Your task to perform on an android device: turn on sleep mode Image 0: 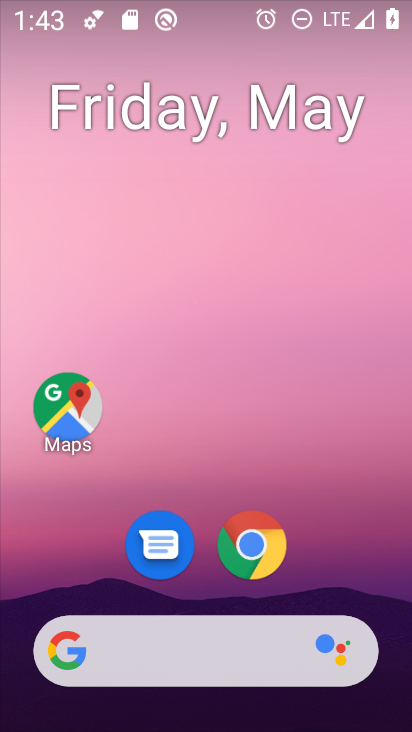
Step 0: drag from (317, 537) to (274, 212)
Your task to perform on an android device: turn on sleep mode Image 1: 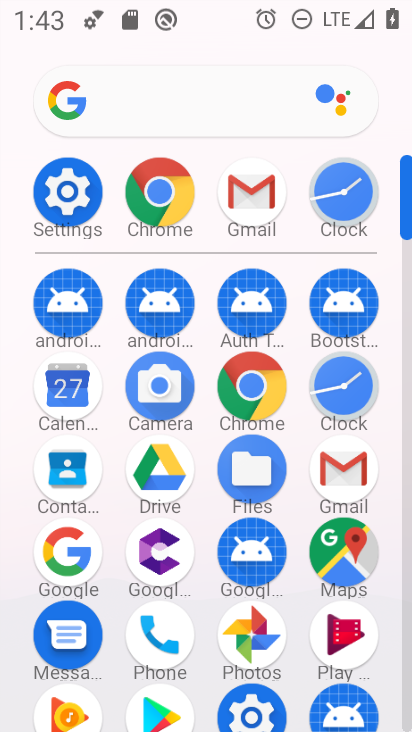
Step 1: click (70, 192)
Your task to perform on an android device: turn on sleep mode Image 2: 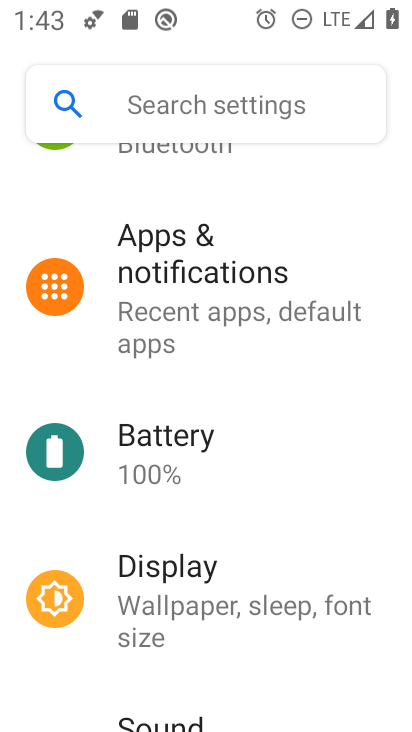
Step 2: task complete